Your task to perform on an android device: turn pop-ups off in chrome Image 0: 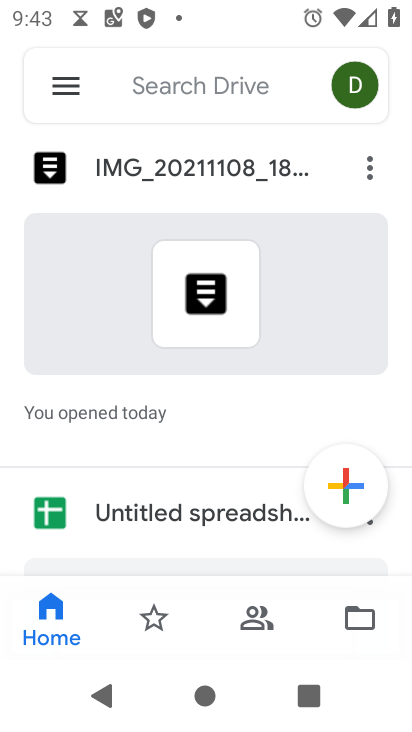
Step 0: press home button
Your task to perform on an android device: turn pop-ups off in chrome Image 1: 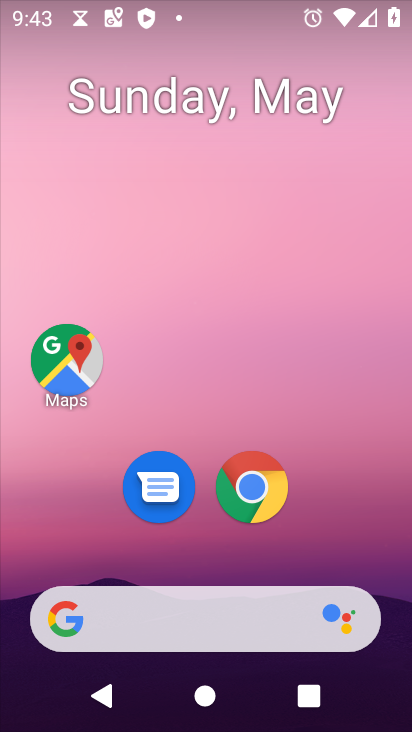
Step 1: drag from (327, 499) to (321, 112)
Your task to perform on an android device: turn pop-ups off in chrome Image 2: 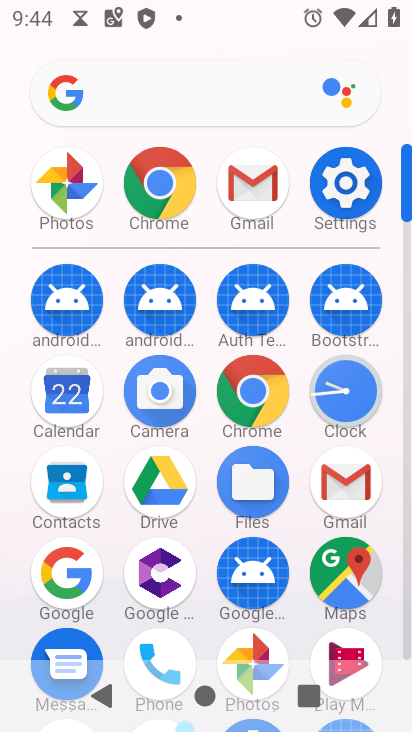
Step 2: click (166, 192)
Your task to perform on an android device: turn pop-ups off in chrome Image 3: 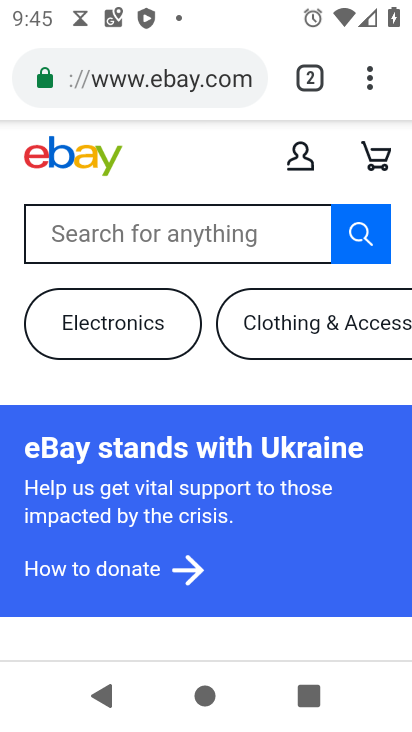
Step 3: drag from (378, 72) to (91, 530)
Your task to perform on an android device: turn pop-ups off in chrome Image 4: 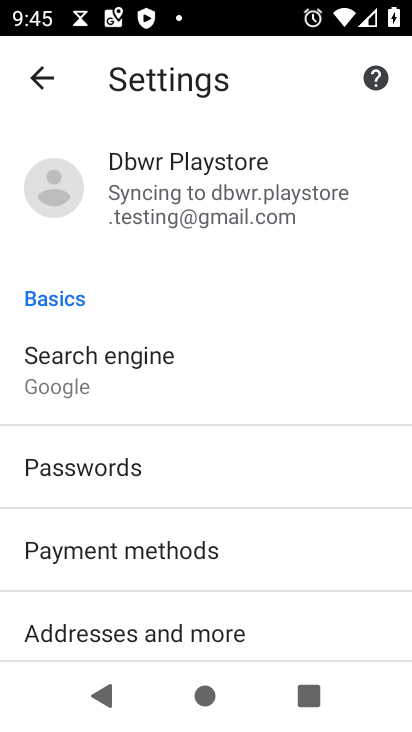
Step 4: drag from (160, 593) to (171, 305)
Your task to perform on an android device: turn pop-ups off in chrome Image 5: 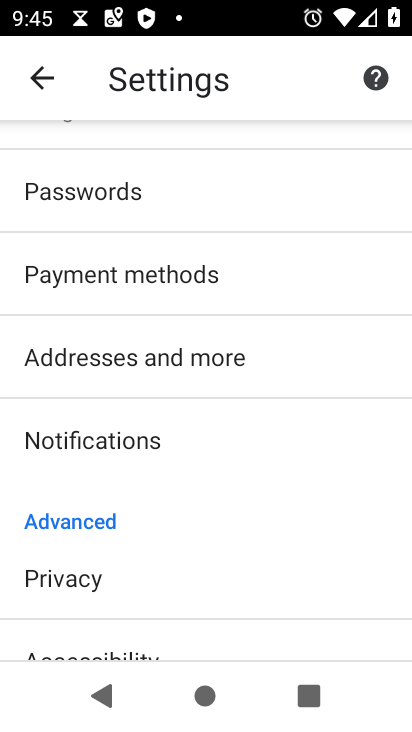
Step 5: drag from (170, 621) to (182, 292)
Your task to perform on an android device: turn pop-ups off in chrome Image 6: 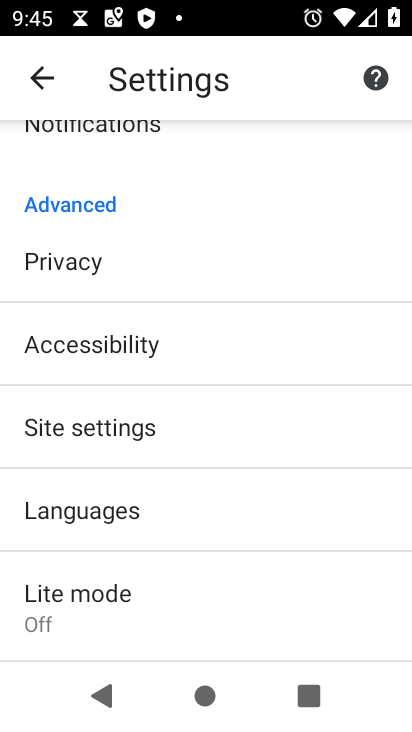
Step 6: click (111, 428)
Your task to perform on an android device: turn pop-ups off in chrome Image 7: 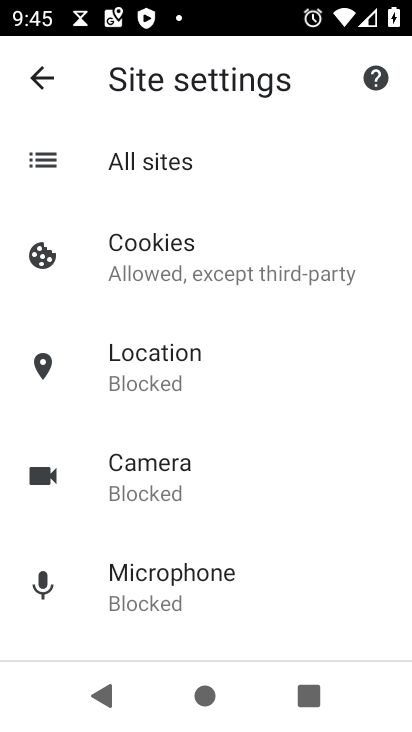
Step 7: drag from (172, 537) to (114, 351)
Your task to perform on an android device: turn pop-ups off in chrome Image 8: 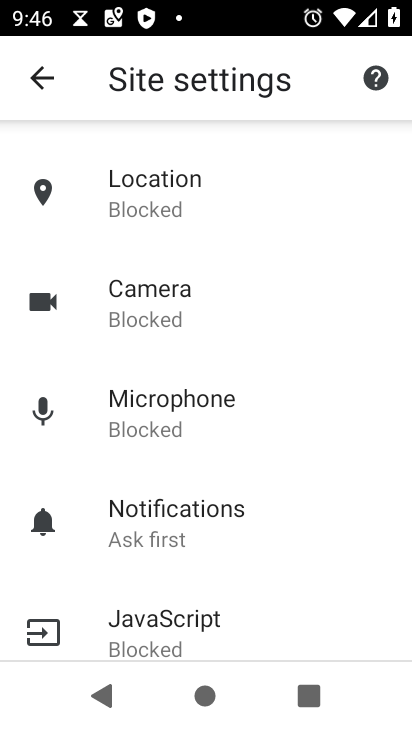
Step 8: drag from (227, 550) to (169, 263)
Your task to perform on an android device: turn pop-ups off in chrome Image 9: 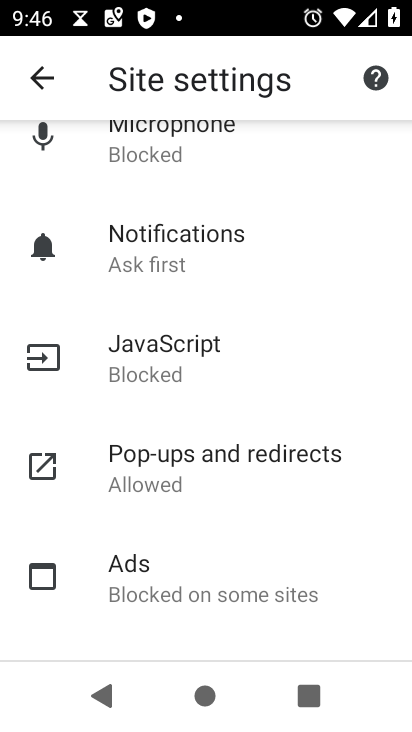
Step 9: click (202, 461)
Your task to perform on an android device: turn pop-ups off in chrome Image 10: 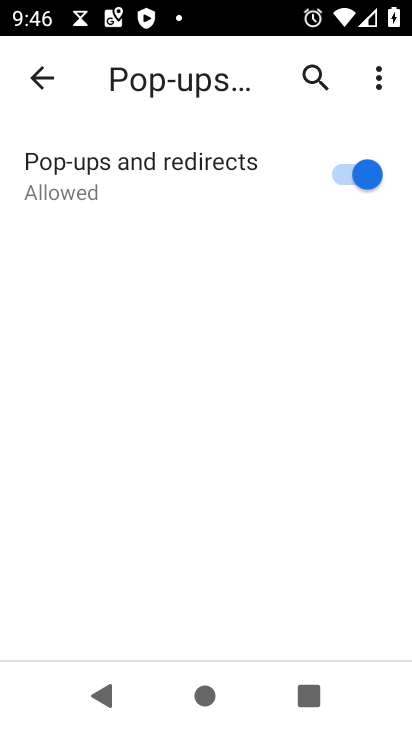
Step 10: click (360, 161)
Your task to perform on an android device: turn pop-ups off in chrome Image 11: 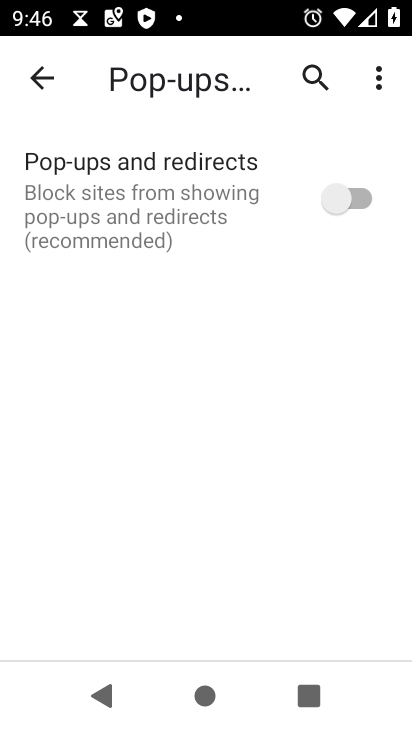
Step 11: task complete